Your task to perform on an android device: allow cookies in the chrome app Image 0: 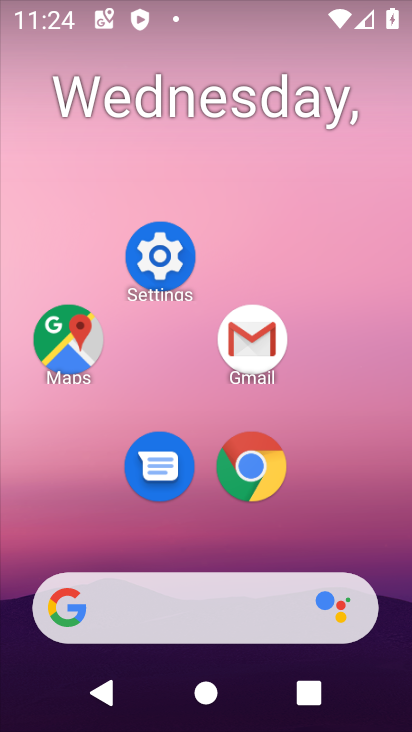
Step 0: drag from (207, 514) to (251, 195)
Your task to perform on an android device: allow cookies in the chrome app Image 1: 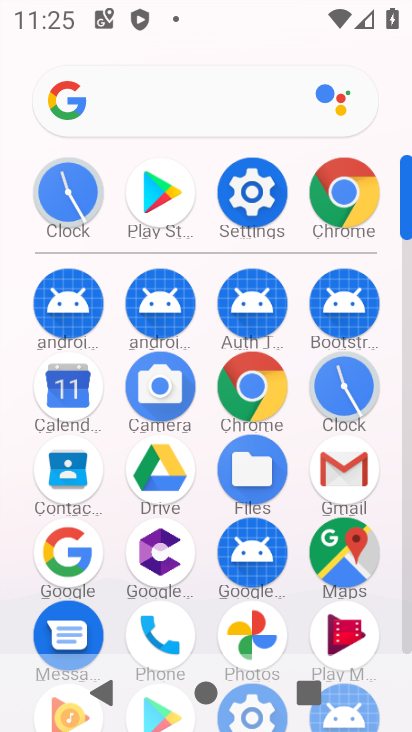
Step 1: click (249, 382)
Your task to perform on an android device: allow cookies in the chrome app Image 2: 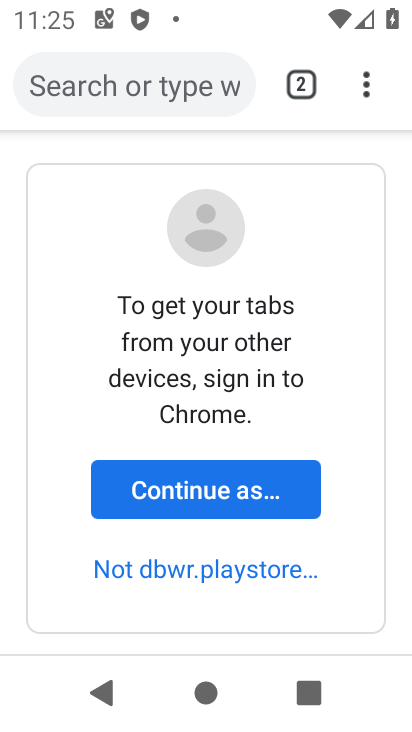
Step 2: drag from (343, 89) to (142, 510)
Your task to perform on an android device: allow cookies in the chrome app Image 3: 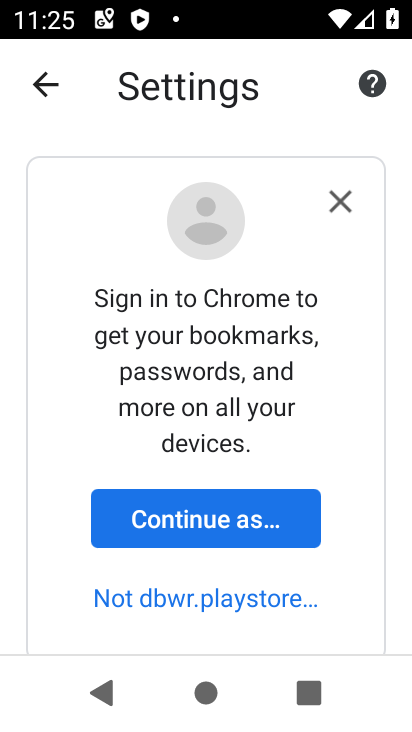
Step 3: drag from (205, 569) to (259, 107)
Your task to perform on an android device: allow cookies in the chrome app Image 4: 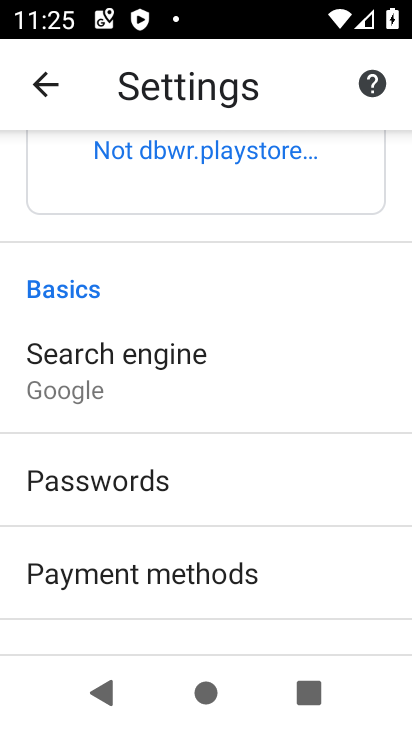
Step 4: drag from (171, 545) to (247, 103)
Your task to perform on an android device: allow cookies in the chrome app Image 5: 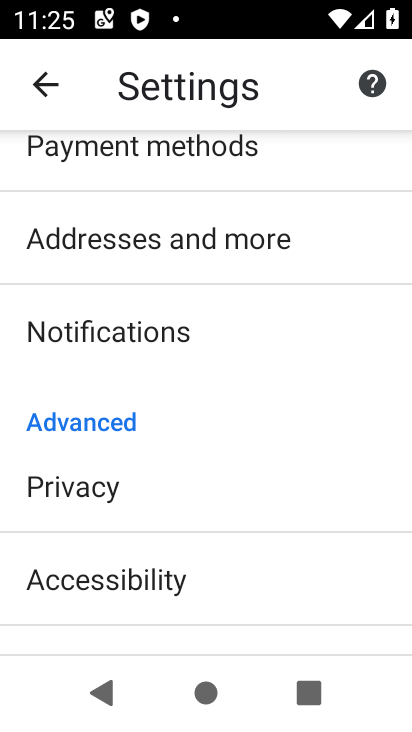
Step 5: drag from (192, 550) to (223, 167)
Your task to perform on an android device: allow cookies in the chrome app Image 6: 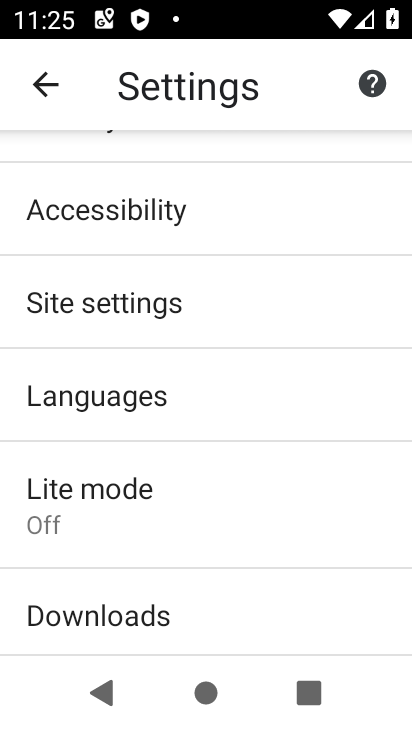
Step 6: click (137, 317)
Your task to perform on an android device: allow cookies in the chrome app Image 7: 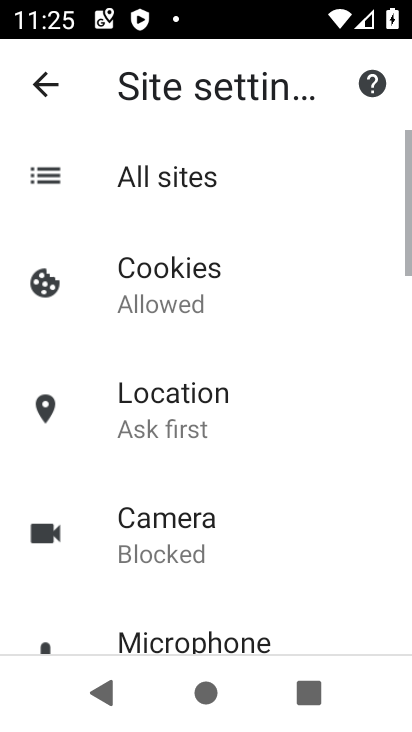
Step 7: click (225, 280)
Your task to perform on an android device: allow cookies in the chrome app Image 8: 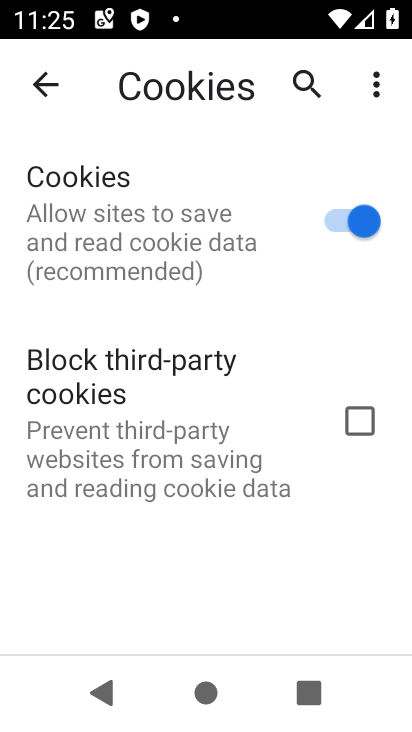
Step 8: task complete